Your task to perform on an android device: Go to notification settings Image 0: 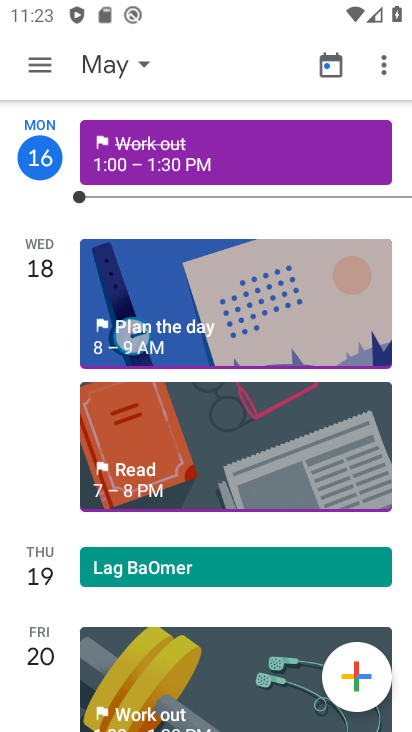
Step 0: click (253, 601)
Your task to perform on an android device: Go to notification settings Image 1: 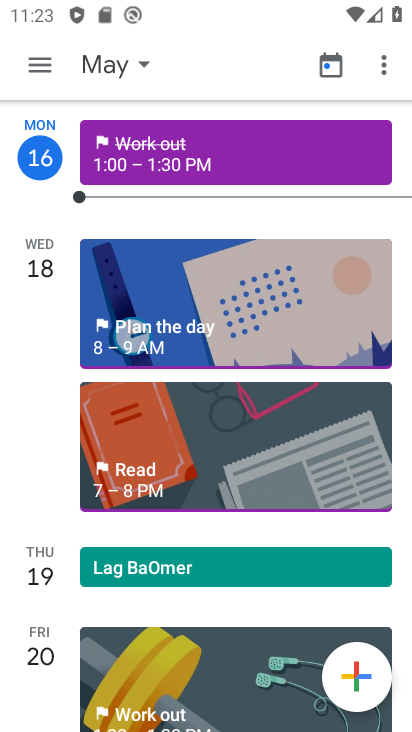
Step 1: press home button
Your task to perform on an android device: Go to notification settings Image 2: 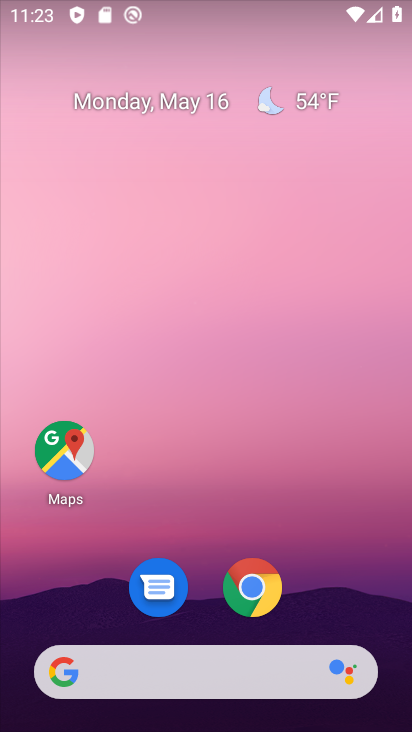
Step 2: drag from (206, 606) to (206, 49)
Your task to perform on an android device: Go to notification settings Image 3: 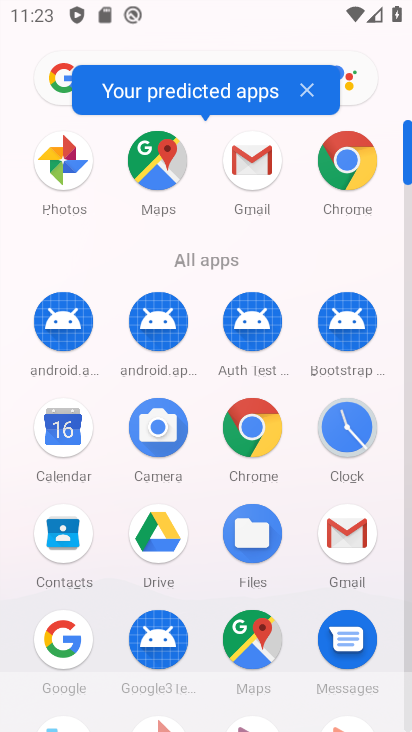
Step 3: drag from (181, 481) to (221, 94)
Your task to perform on an android device: Go to notification settings Image 4: 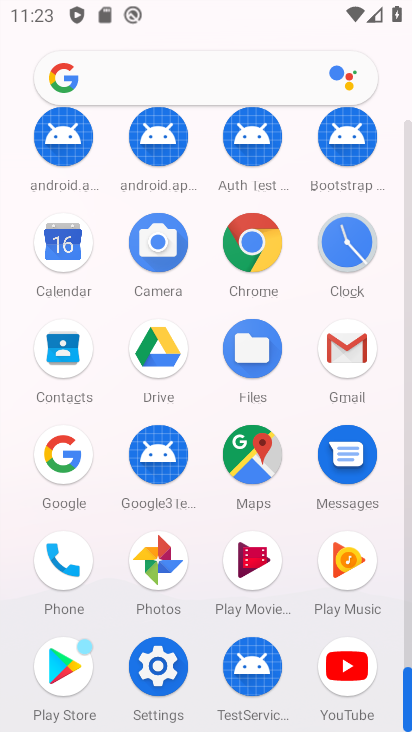
Step 4: click (161, 664)
Your task to perform on an android device: Go to notification settings Image 5: 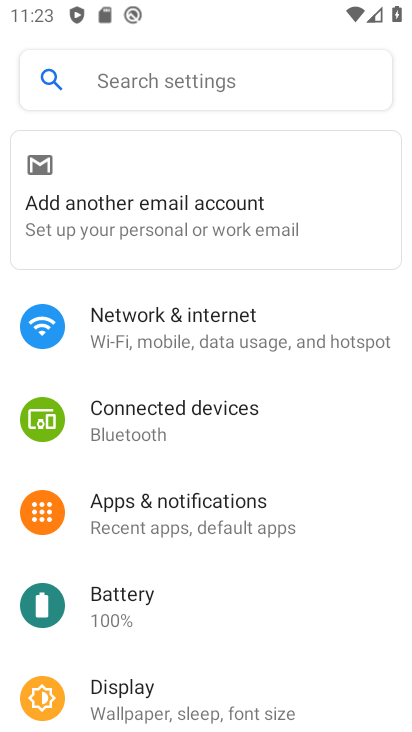
Step 5: click (182, 523)
Your task to perform on an android device: Go to notification settings Image 6: 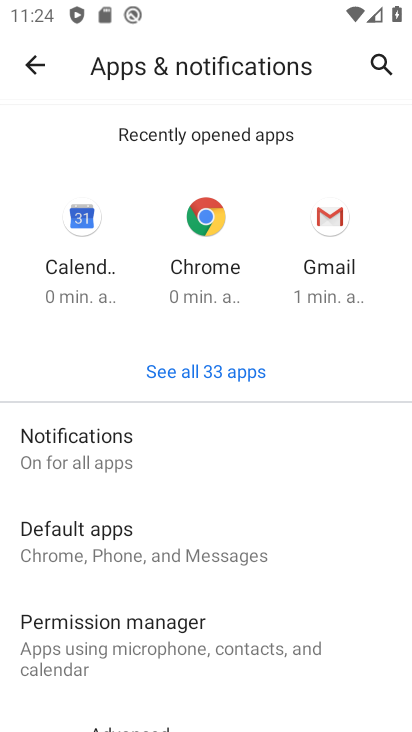
Step 6: click (102, 449)
Your task to perform on an android device: Go to notification settings Image 7: 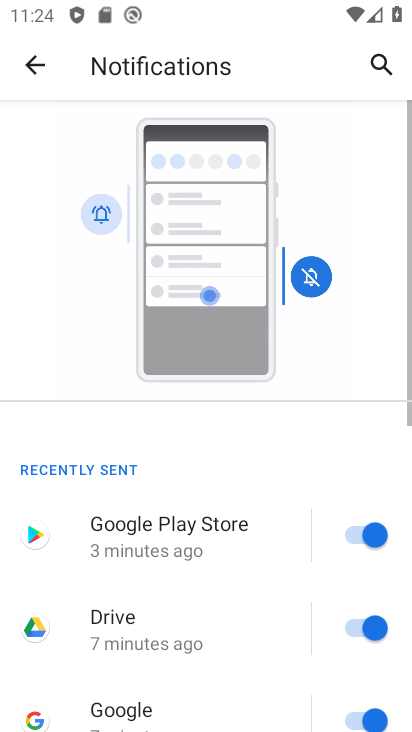
Step 7: task complete